Your task to perform on an android device: visit the assistant section in the google photos Image 0: 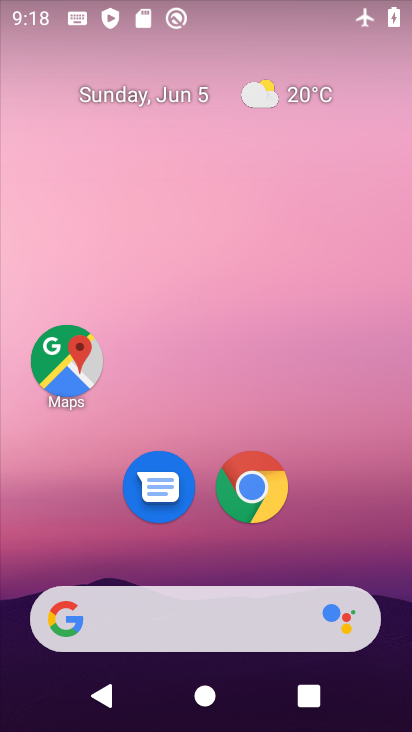
Step 0: drag from (167, 574) to (161, 329)
Your task to perform on an android device: visit the assistant section in the google photos Image 1: 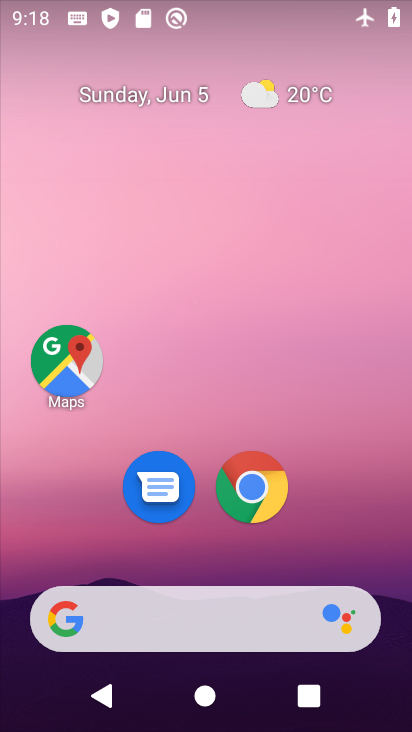
Step 1: drag from (213, 594) to (269, 90)
Your task to perform on an android device: visit the assistant section in the google photos Image 2: 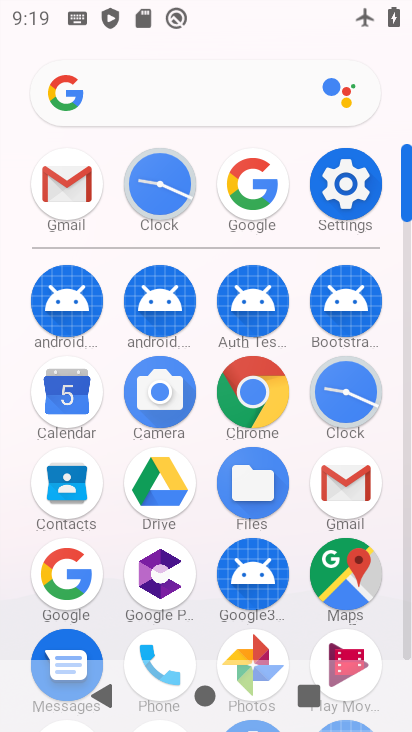
Step 2: drag from (328, 532) to (317, 221)
Your task to perform on an android device: visit the assistant section in the google photos Image 3: 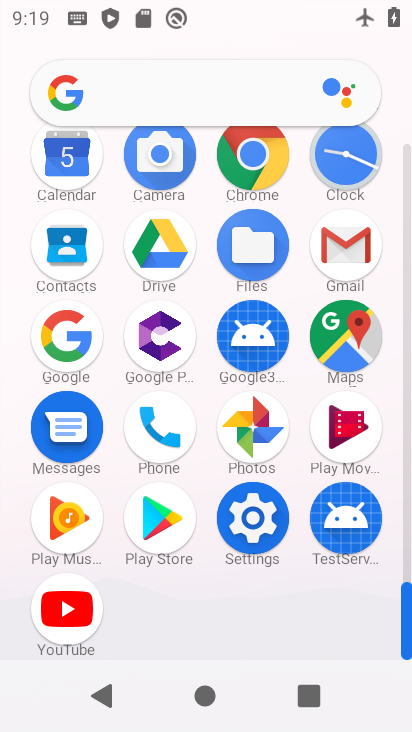
Step 3: click (264, 447)
Your task to perform on an android device: visit the assistant section in the google photos Image 4: 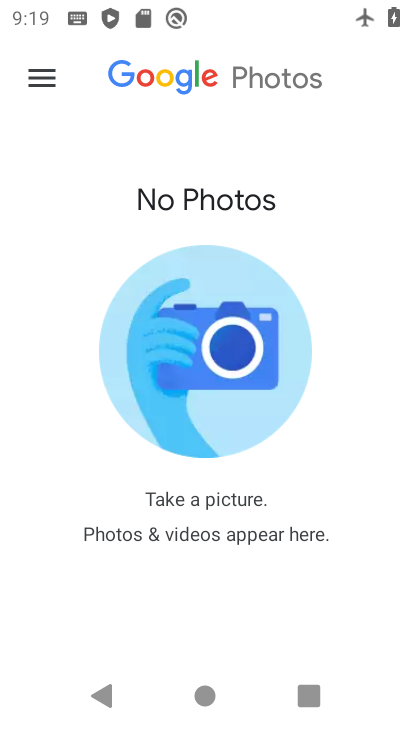
Step 4: click (50, 92)
Your task to perform on an android device: visit the assistant section in the google photos Image 5: 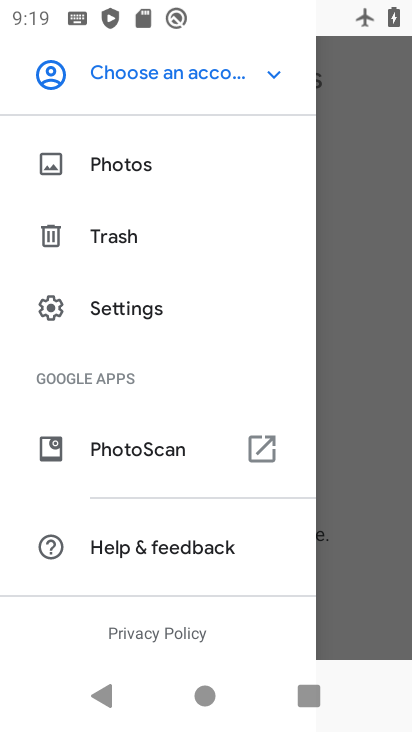
Step 5: drag from (142, 229) to (128, 642)
Your task to perform on an android device: visit the assistant section in the google photos Image 6: 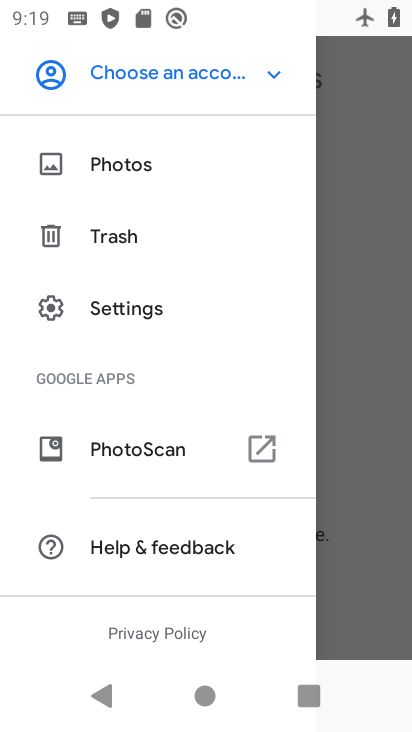
Step 6: click (362, 319)
Your task to perform on an android device: visit the assistant section in the google photos Image 7: 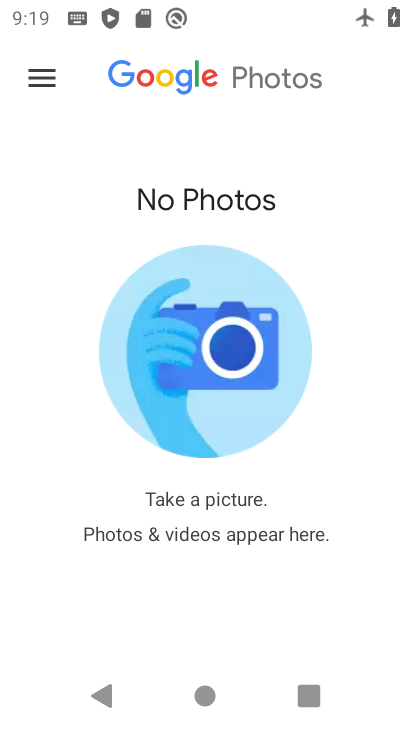
Step 7: task complete